Your task to perform on an android device: Go to Google Image 0: 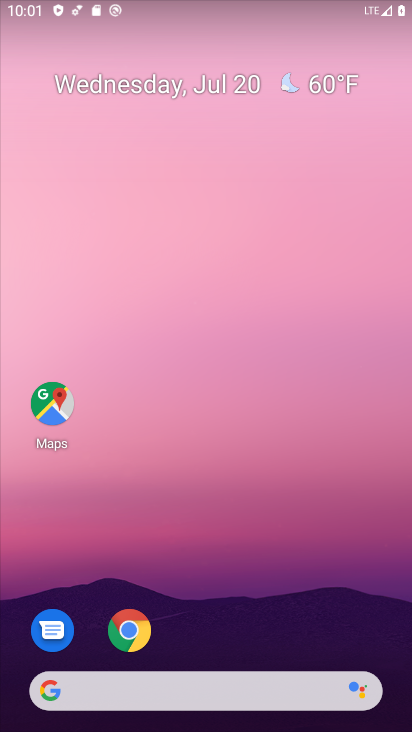
Step 0: drag from (221, 635) to (221, 366)
Your task to perform on an android device: Go to Google Image 1: 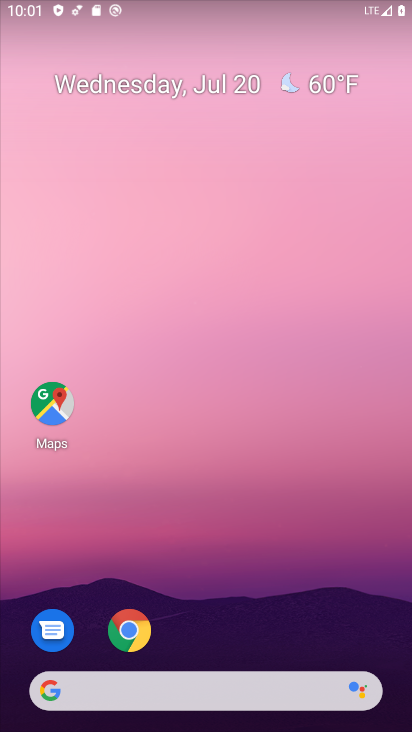
Step 1: drag from (254, 525) to (256, 73)
Your task to perform on an android device: Go to Google Image 2: 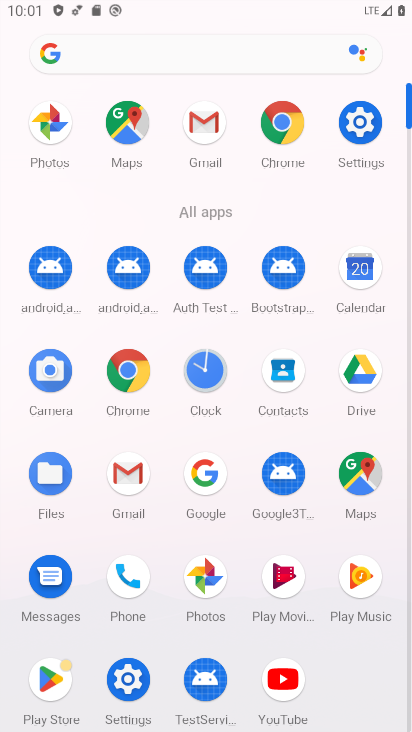
Step 2: click (206, 475)
Your task to perform on an android device: Go to Google Image 3: 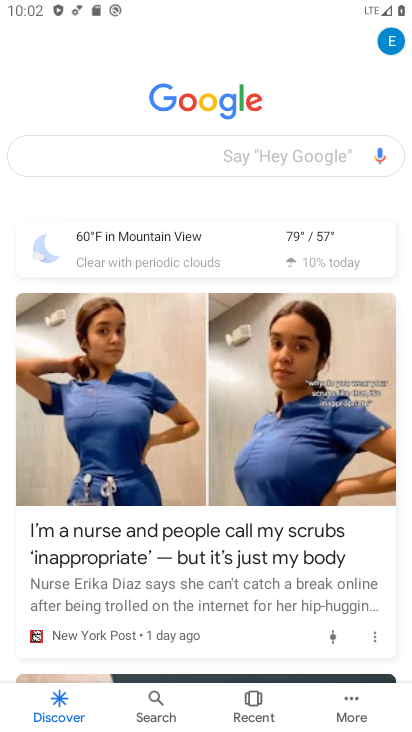
Step 3: task complete